Your task to perform on an android device: toggle data saver in the chrome app Image 0: 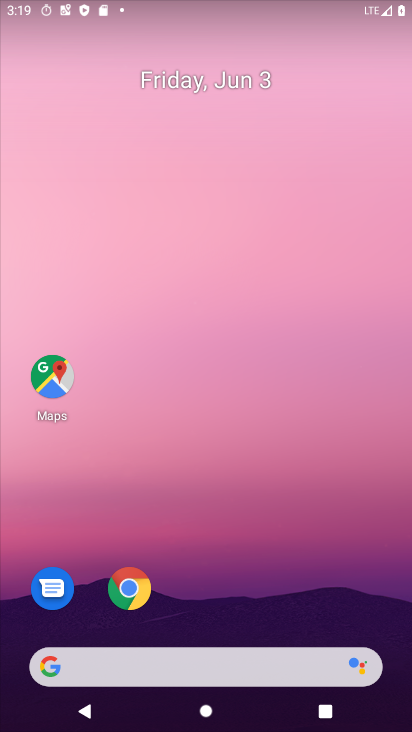
Step 0: click (137, 584)
Your task to perform on an android device: toggle data saver in the chrome app Image 1: 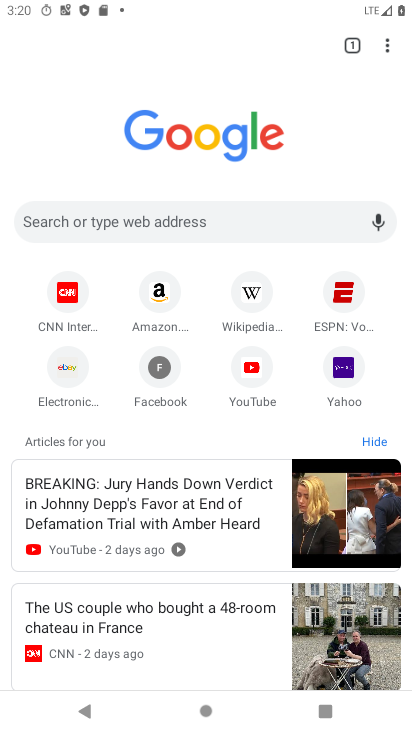
Step 1: click (388, 46)
Your task to perform on an android device: toggle data saver in the chrome app Image 2: 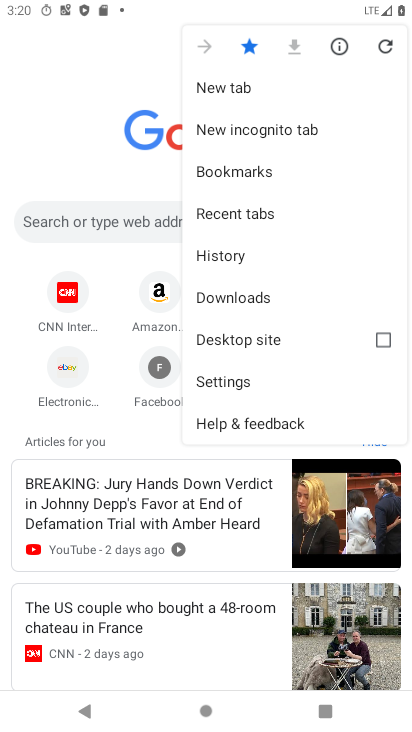
Step 2: click (209, 383)
Your task to perform on an android device: toggle data saver in the chrome app Image 3: 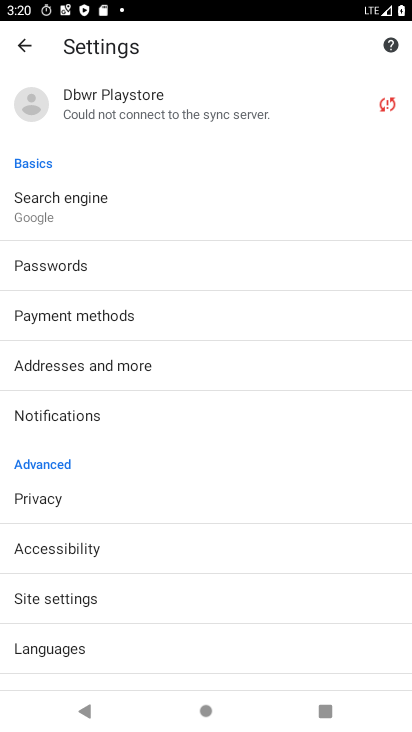
Step 3: drag from (25, 569) to (275, 113)
Your task to perform on an android device: toggle data saver in the chrome app Image 4: 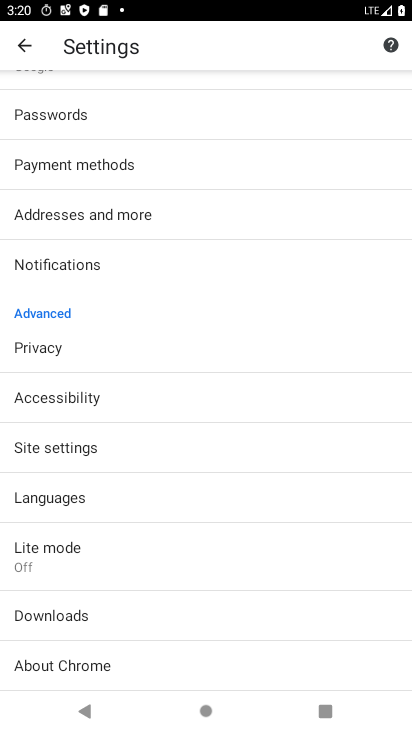
Step 4: click (69, 560)
Your task to perform on an android device: toggle data saver in the chrome app Image 5: 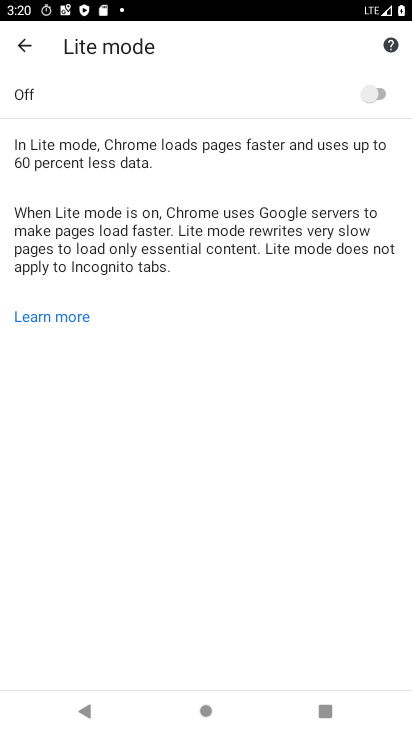
Step 5: click (369, 96)
Your task to perform on an android device: toggle data saver in the chrome app Image 6: 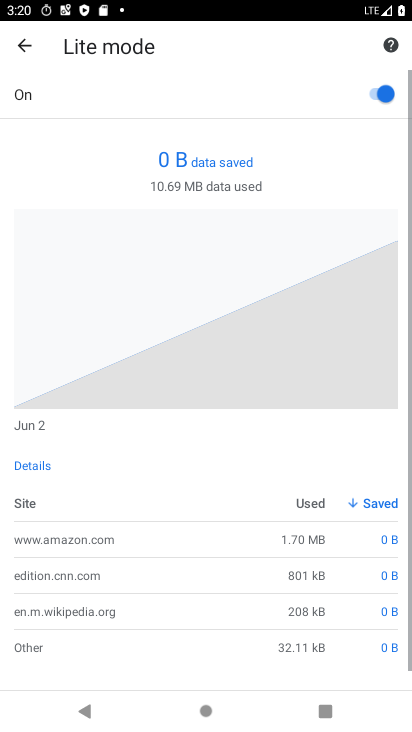
Step 6: task complete